Your task to perform on an android device: turn off notifications in google photos Image 0: 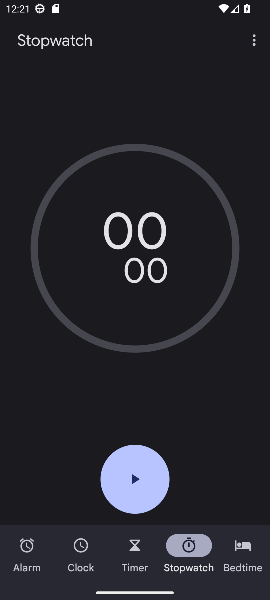
Step 0: press home button
Your task to perform on an android device: turn off notifications in google photos Image 1: 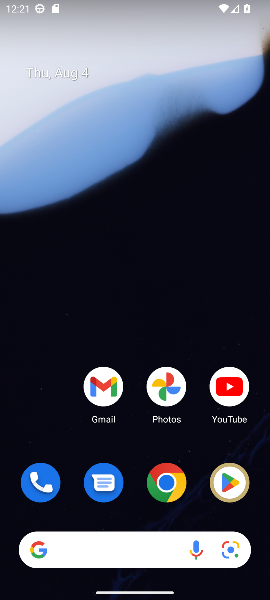
Step 1: drag from (133, 512) to (135, 207)
Your task to perform on an android device: turn off notifications in google photos Image 2: 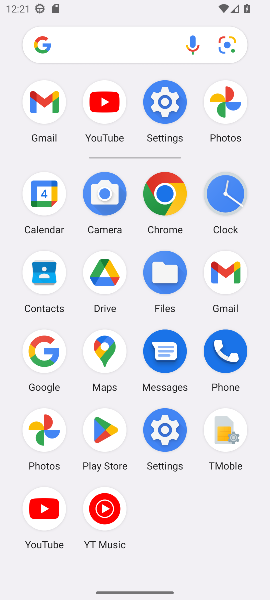
Step 2: click (220, 121)
Your task to perform on an android device: turn off notifications in google photos Image 3: 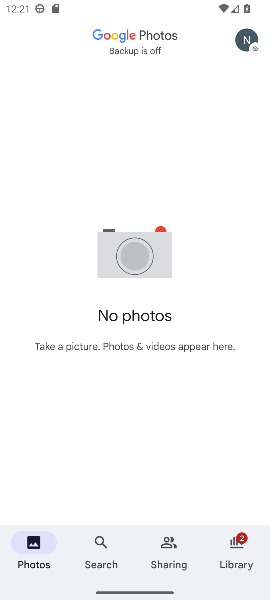
Step 3: click (240, 539)
Your task to perform on an android device: turn off notifications in google photos Image 4: 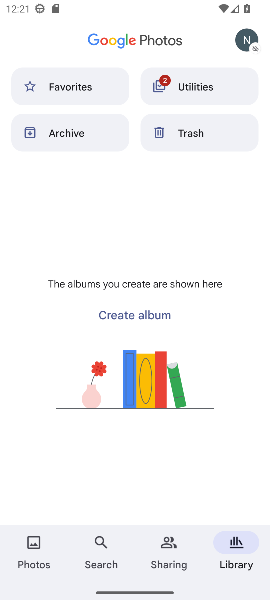
Step 4: click (254, 43)
Your task to perform on an android device: turn off notifications in google photos Image 5: 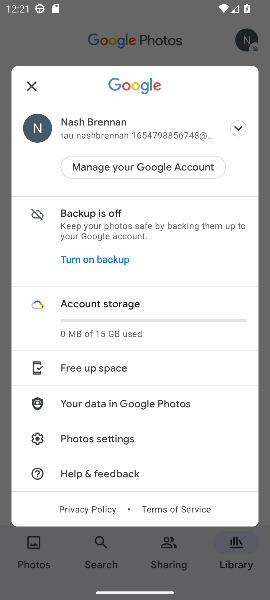
Step 5: drag from (111, 451) to (126, 227)
Your task to perform on an android device: turn off notifications in google photos Image 6: 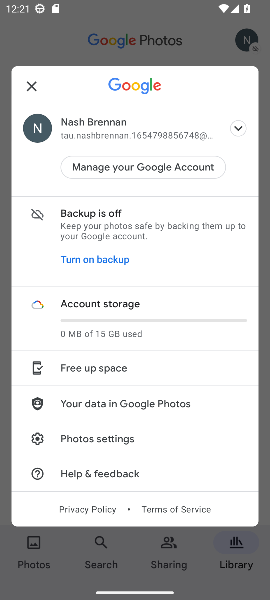
Step 6: click (130, 446)
Your task to perform on an android device: turn off notifications in google photos Image 7: 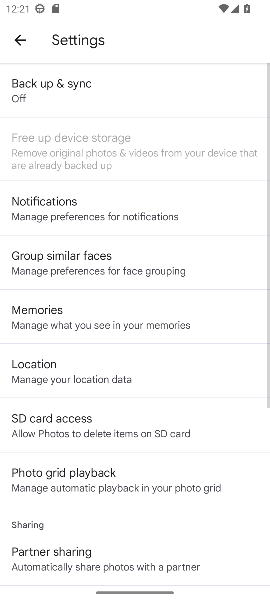
Step 7: click (138, 217)
Your task to perform on an android device: turn off notifications in google photos Image 8: 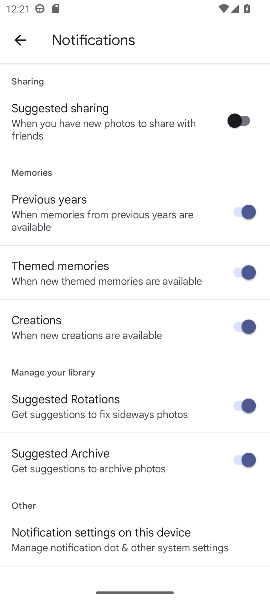
Step 8: drag from (136, 467) to (140, 243)
Your task to perform on an android device: turn off notifications in google photos Image 9: 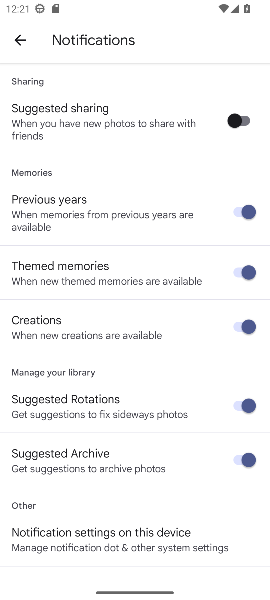
Step 9: drag from (150, 162) to (171, 396)
Your task to perform on an android device: turn off notifications in google photos Image 10: 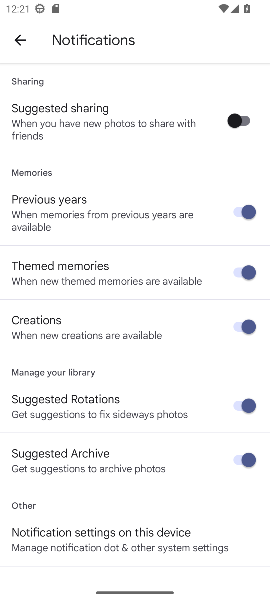
Step 10: click (131, 536)
Your task to perform on an android device: turn off notifications in google photos Image 11: 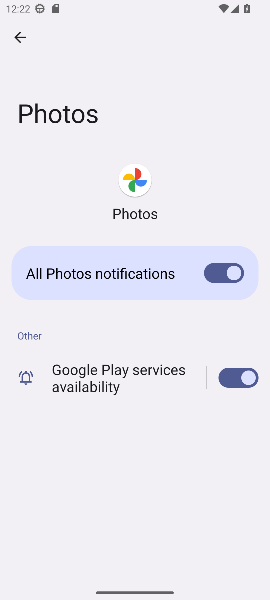
Step 11: click (208, 266)
Your task to perform on an android device: turn off notifications in google photos Image 12: 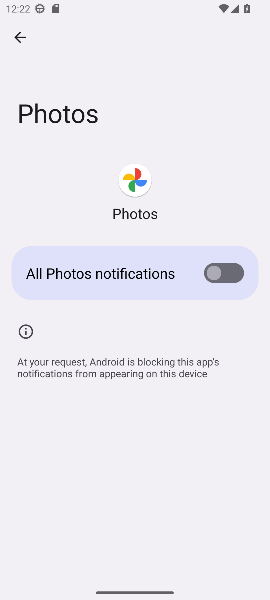
Step 12: task complete